Your task to perform on an android device: Go to wifi settings Image 0: 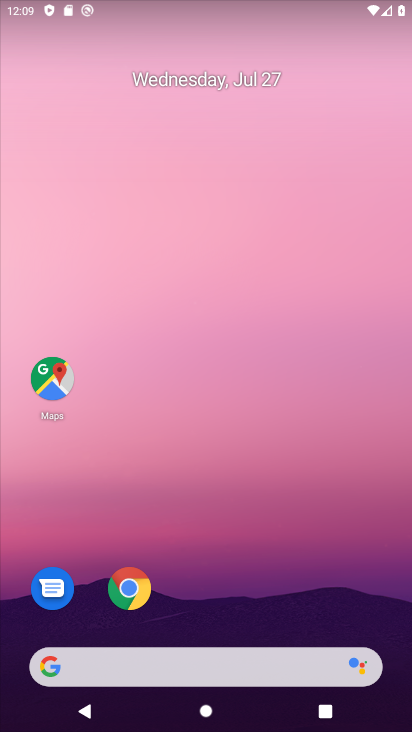
Step 0: drag from (54, 624) to (224, 94)
Your task to perform on an android device: Go to wifi settings Image 1: 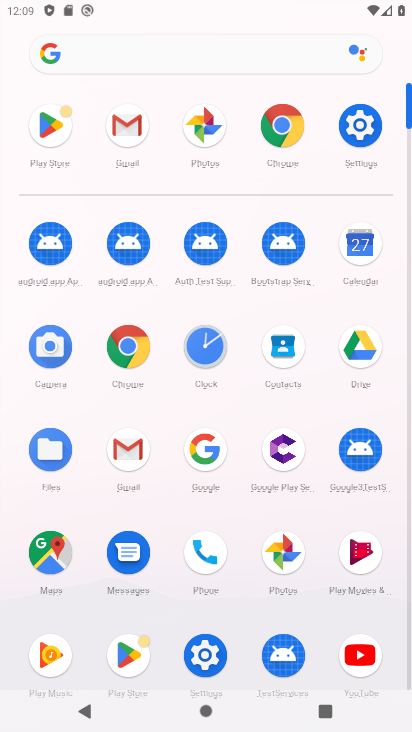
Step 1: click (209, 664)
Your task to perform on an android device: Go to wifi settings Image 2: 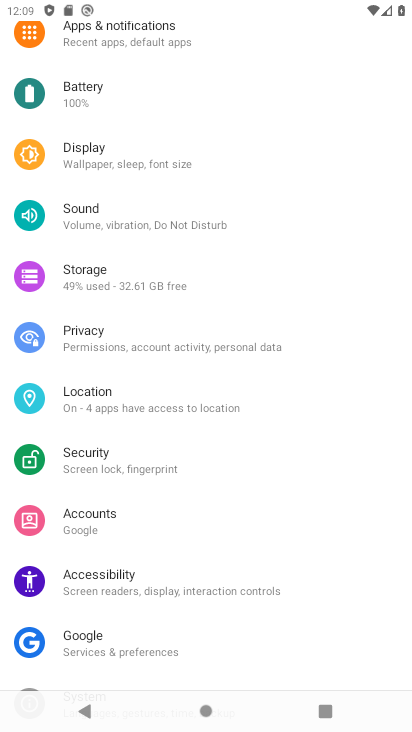
Step 2: drag from (244, 57) to (309, 375)
Your task to perform on an android device: Go to wifi settings Image 3: 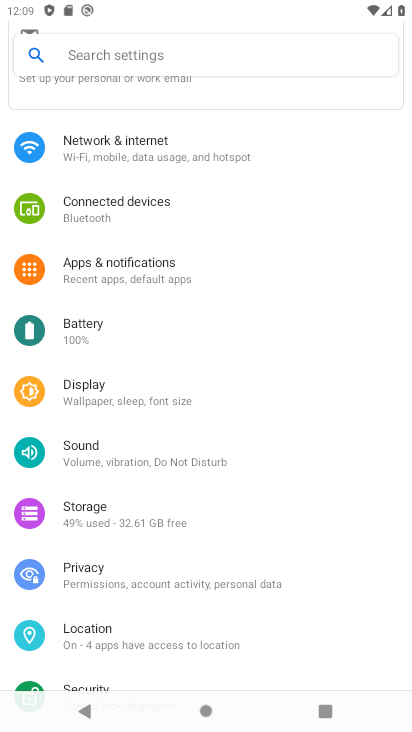
Step 3: click (136, 157)
Your task to perform on an android device: Go to wifi settings Image 4: 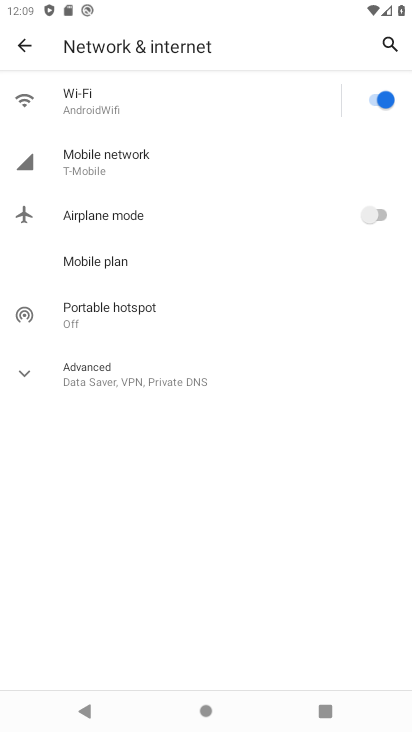
Step 4: task complete